Your task to perform on an android device: clear all cookies in the chrome app Image 0: 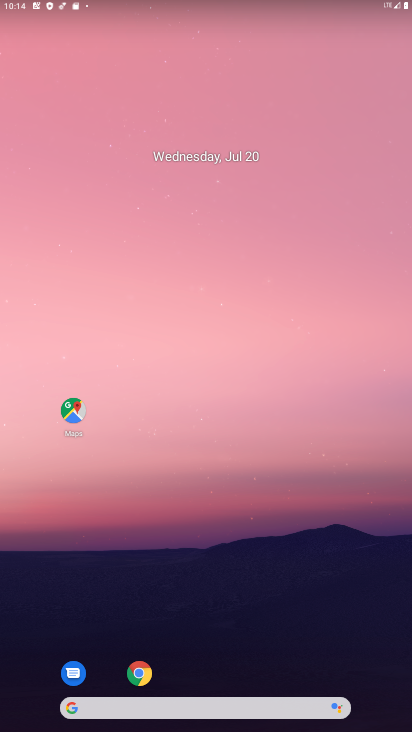
Step 0: click (140, 673)
Your task to perform on an android device: clear all cookies in the chrome app Image 1: 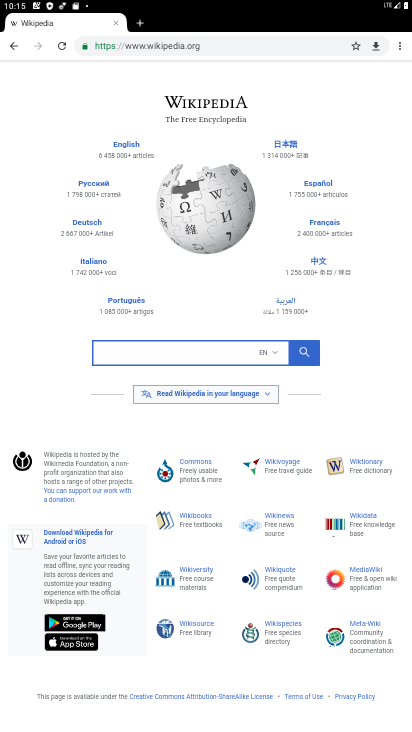
Step 1: click (402, 46)
Your task to perform on an android device: clear all cookies in the chrome app Image 2: 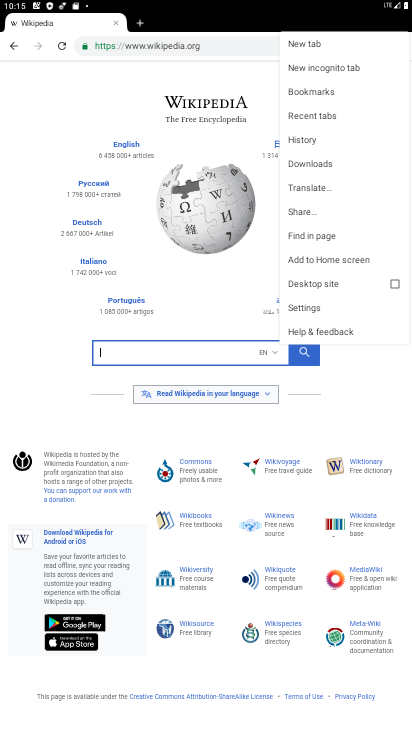
Step 2: click (312, 307)
Your task to perform on an android device: clear all cookies in the chrome app Image 3: 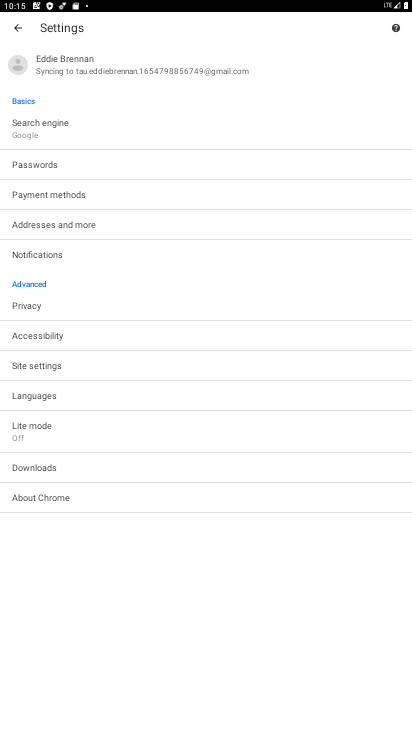
Step 3: click (32, 307)
Your task to perform on an android device: clear all cookies in the chrome app Image 4: 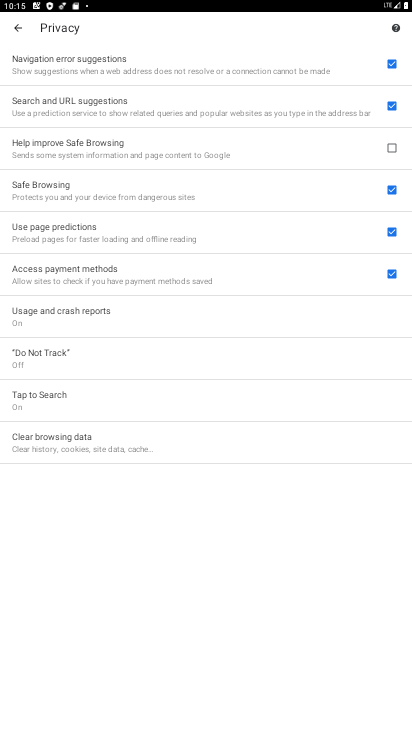
Step 4: click (61, 441)
Your task to perform on an android device: clear all cookies in the chrome app Image 5: 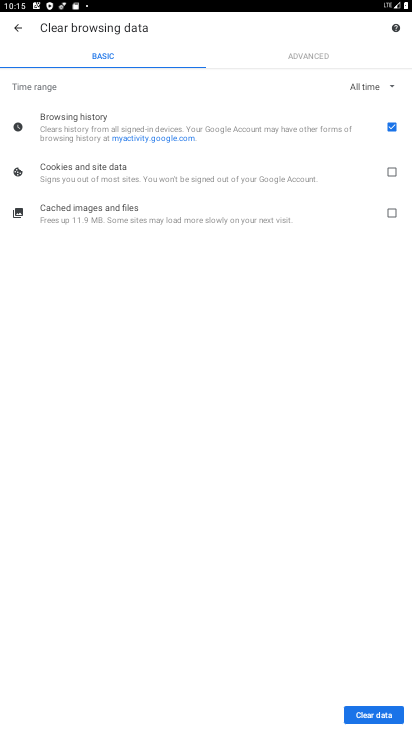
Step 5: click (387, 170)
Your task to perform on an android device: clear all cookies in the chrome app Image 6: 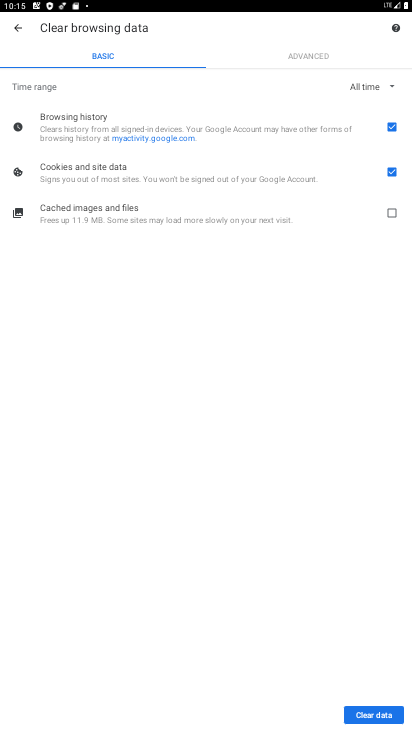
Step 6: click (396, 125)
Your task to perform on an android device: clear all cookies in the chrome app Image 7: 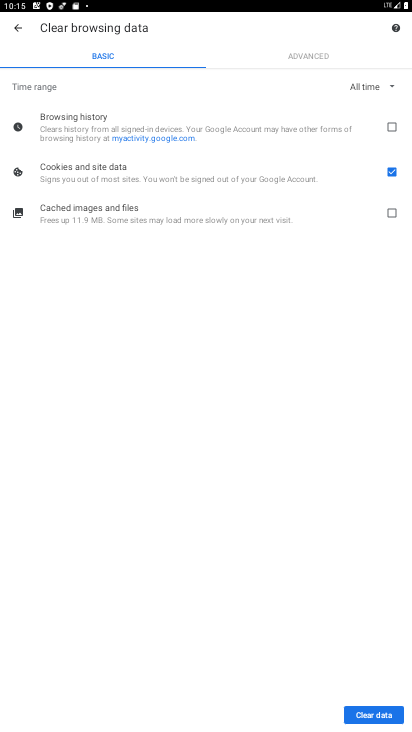
Step 7: click (376, 714)
Your task to perform on an android device: clear all cookies in the chrome app Image 8: 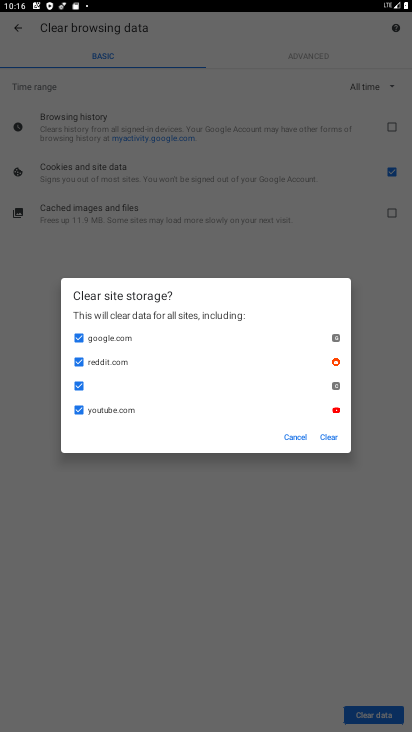
Step 8: click (331, 439)
Your task to perform on an android device: clear all cookies in the chrome app Image 9: 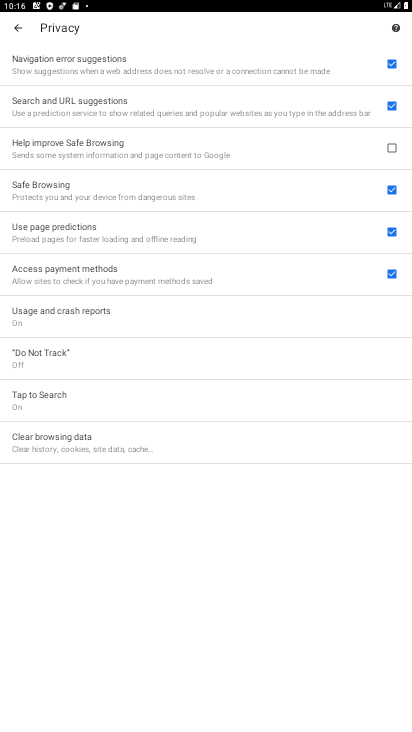
Step 9: task complete